Your task to perform on an android device: delete location history Image 0: 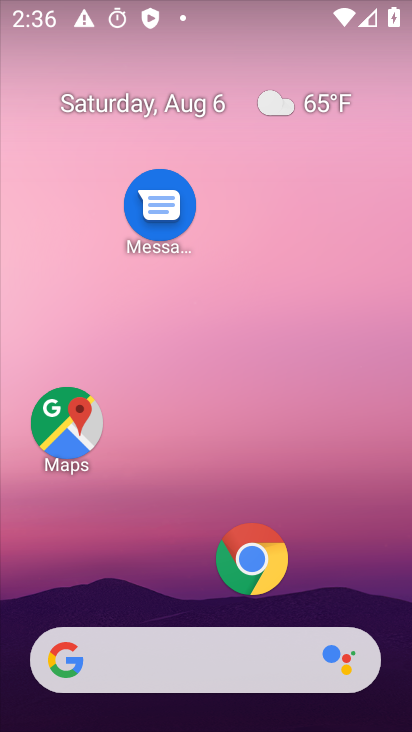
Step 0: drag from (194, 523) to (237, 26)
Your task to perform on an android device: delete location history Image 1: 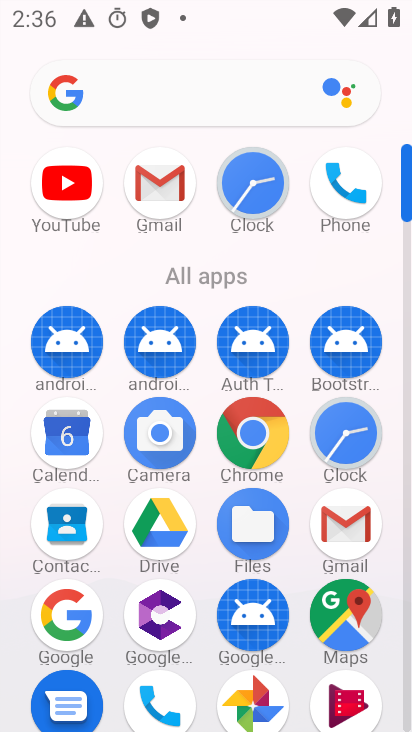
Step 1: drag from (203, 628) to (221, 363)
Your task to perform on an android device: delete location history Image 2: 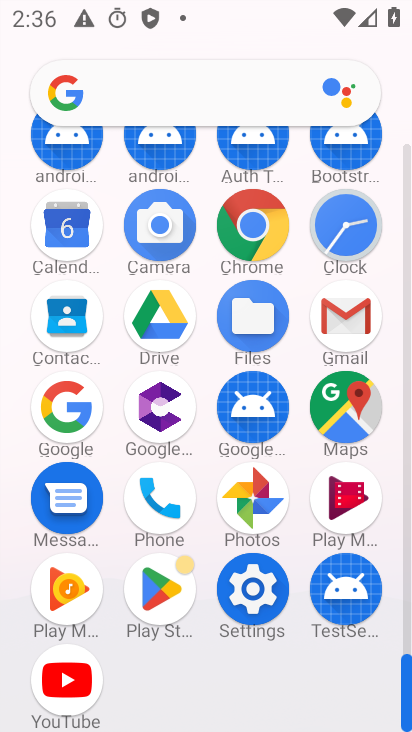
Step 2: click (337, 441)
Your task to perform on an android device: delete location history Image 3: 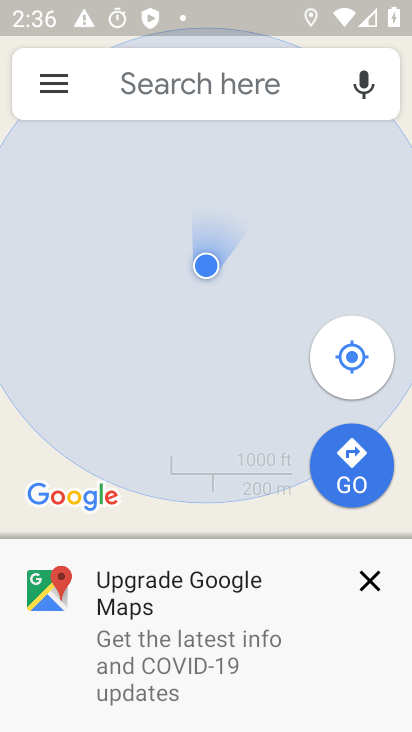
Step 3: click (50, 85)
Your task to perform on an android device: delete location history Image 4: 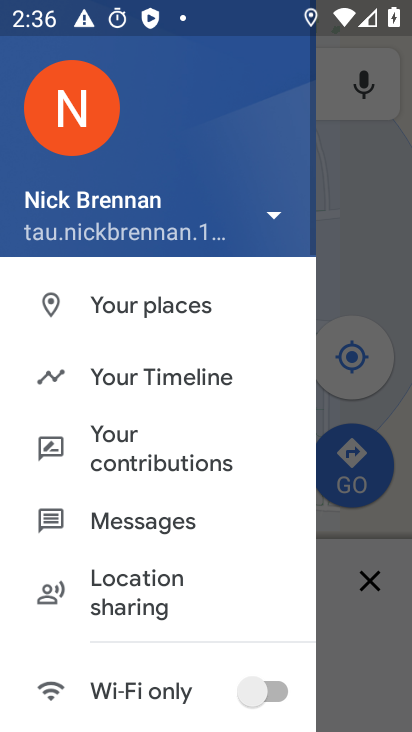
Step 4: click (134, 394)
Your task to perform on an android device: delete location history Image 5: 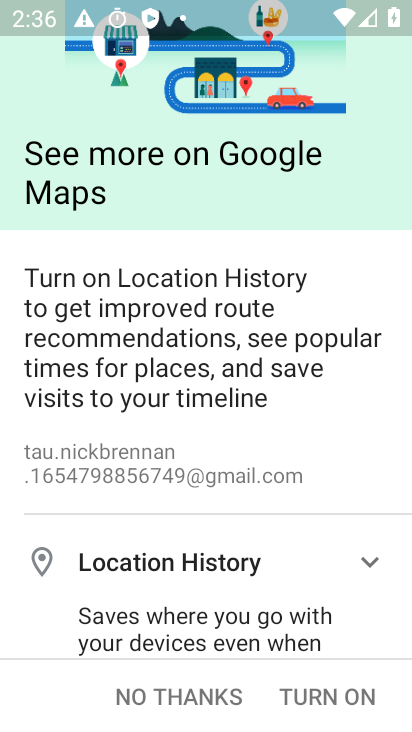
Step 5: click (208, 692)
Your task to perform on an android device: delete location history Image 6: 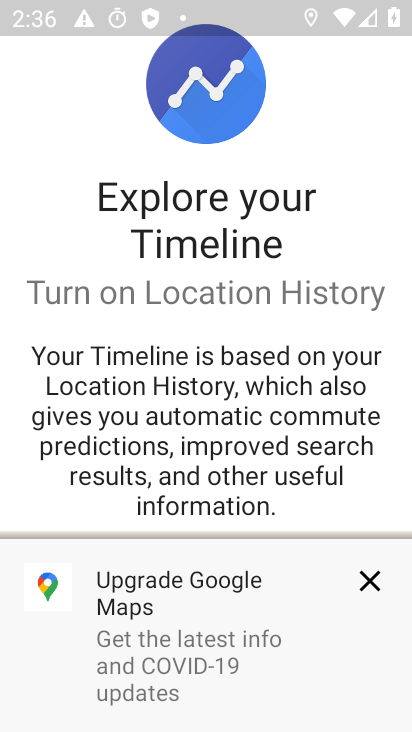
Step 6: click (382, 581)
Your task to perform on an android device: delete location history Image 7: 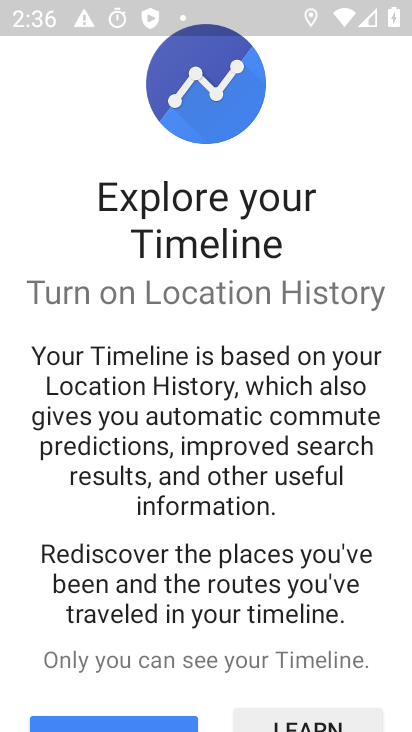
Step 7: drag from (310, 550) to (315, 397)
Your task to perform on an android device: delete location history Image 8: 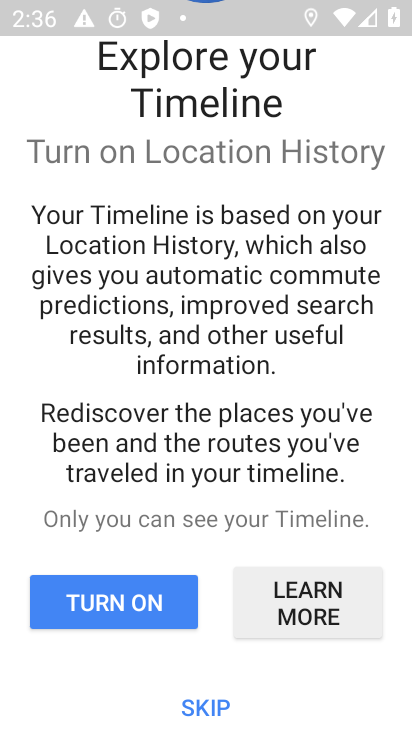
Step 8: click (108, 595)
Your task to perform on an android device: delete location history Image 9: 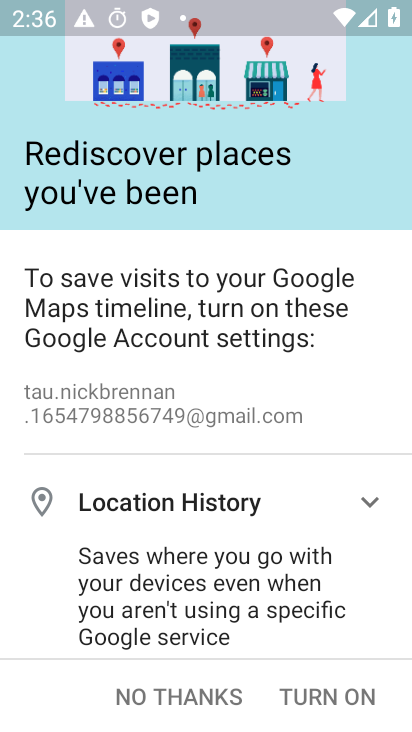
Step 9: click (314, 683)
Your task to perform on an android device: delete location history Image 10: 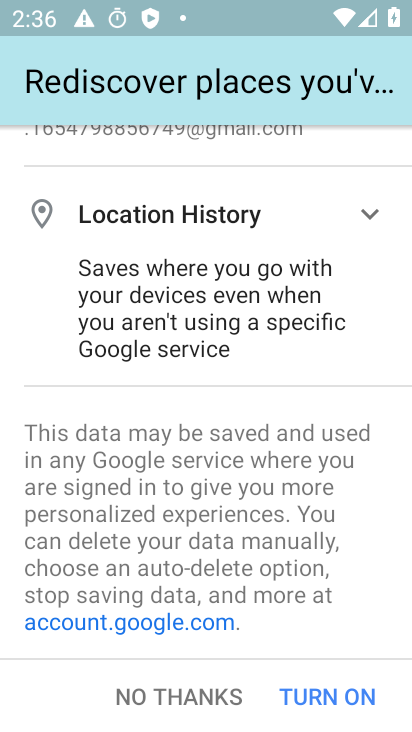
Step 10: click (314, 683)
Your task to perform on an android device: delete location history Image 11: 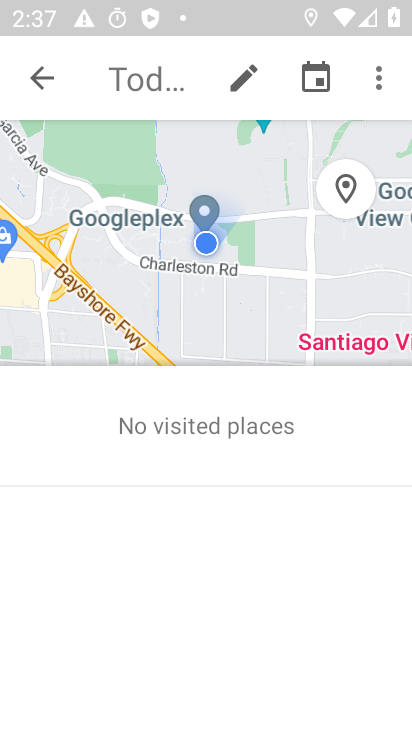
Step 11: click (374, 77)
Your task to perform on an android device: delete location history Image 12: 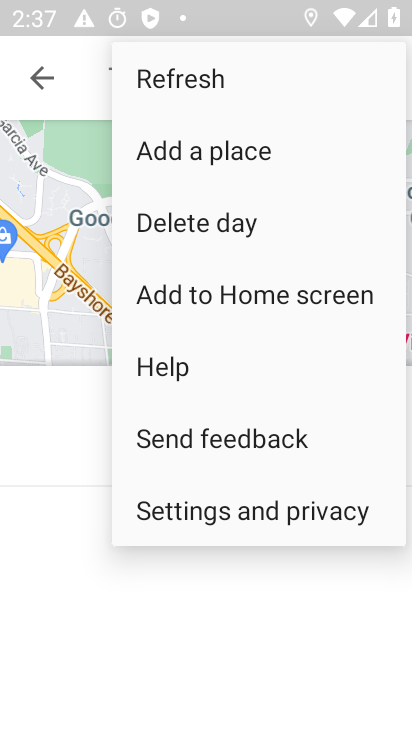
Step 12: click (202, 515)
Your task to perform on an android device: delete location history Image 13: 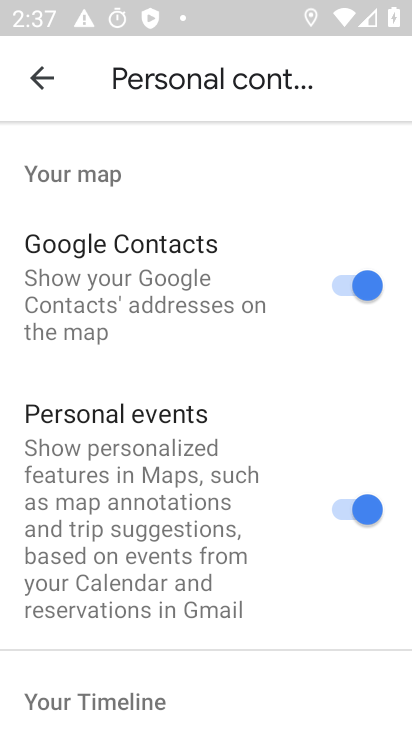
Step 13: drag from (192, 610) to (219, 231)
Your task to perform on an android device: delete location history Image 14: 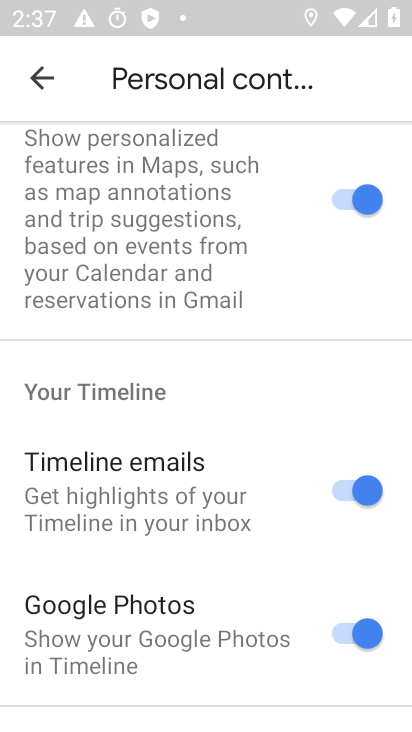
Step 14: drag from (157, 544) to (288, 88)
Your task to perform on an android device: delete location history Image 15: 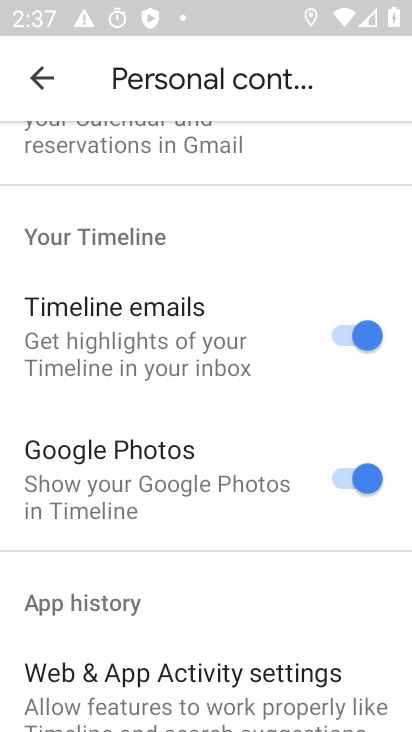
Step 15: drag from (188, 554) to (256, 252)
Your task to perform on an android device: delete location history Image 16: 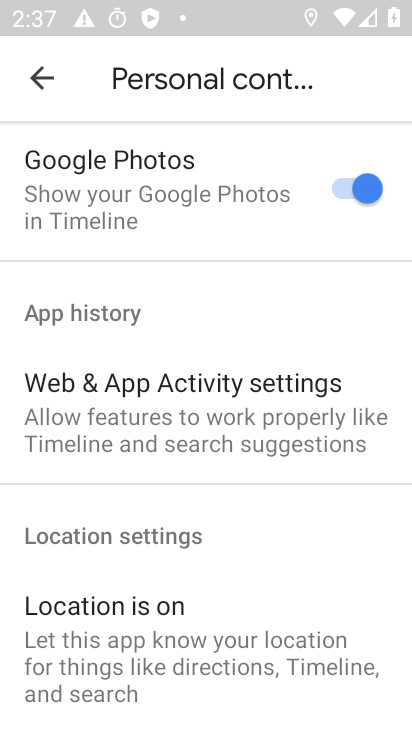
Step 16: drag from (200, 592) to (231, 199)
Your task to perform on an android device: delete location history Image 17: 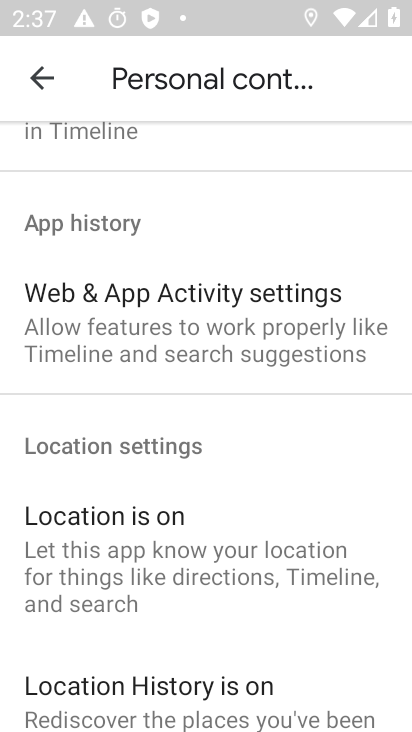
Step 17: drag from (158, 595) to (178, 250)
Your task to perform on an android device: delete location history Image 18: 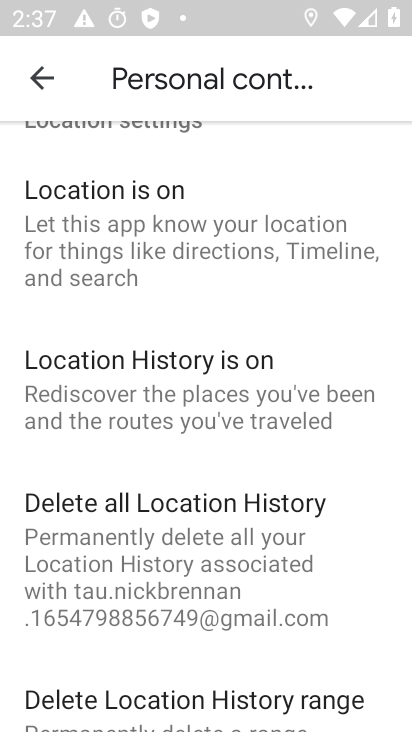
Step 18: click (131, 682)
Your task to perform on an android device: delete location history Image 19: 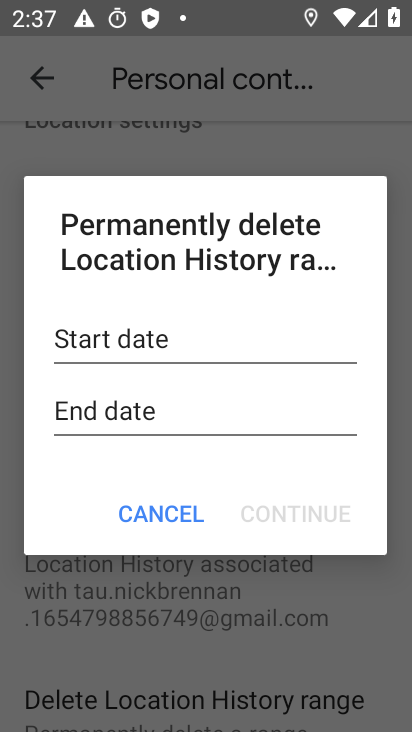
Step 19: click (171, 337)
Your task to perform on an android device: delete location history Image 20: 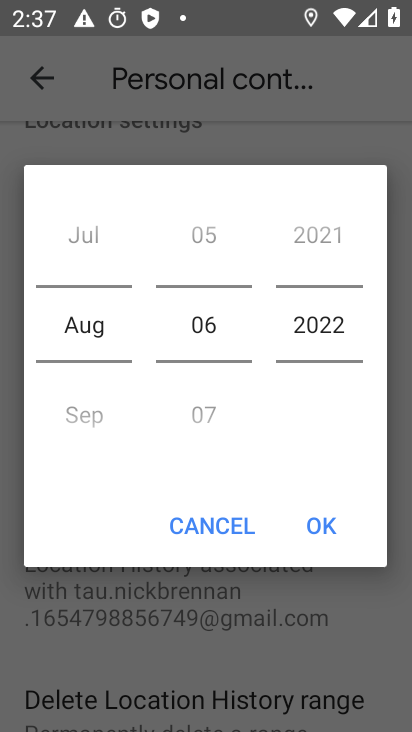
Step 20: click (318, 523)
Your task to perform on an android device: delete location history Image 21: 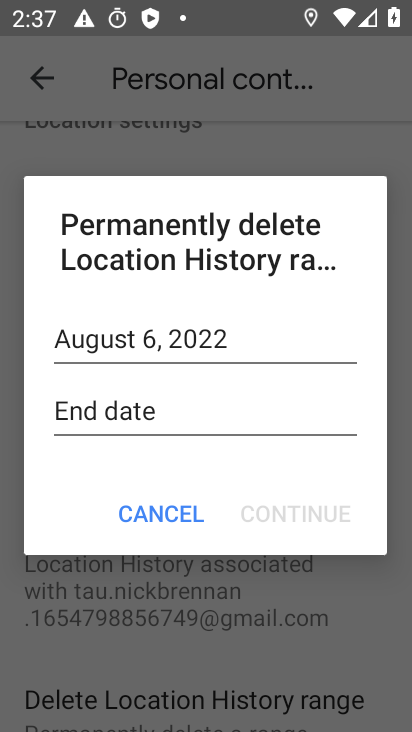
Step 21: click (134, 412)
Your task to perform on an android device: delete location history Image 22: 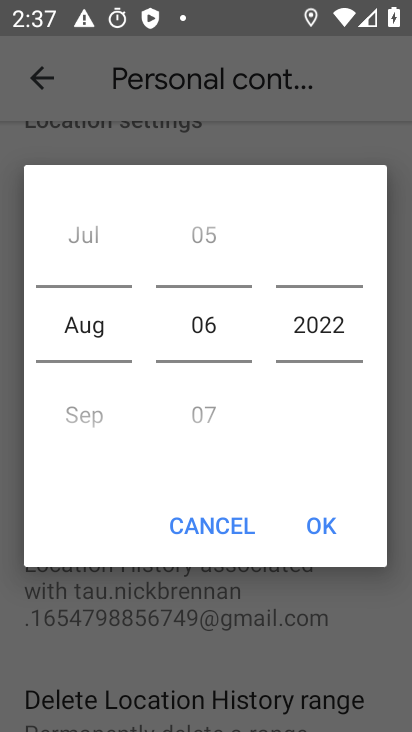
Step 22: click (311, 524)
Your task to perform on an android device: delete location history Image 23: 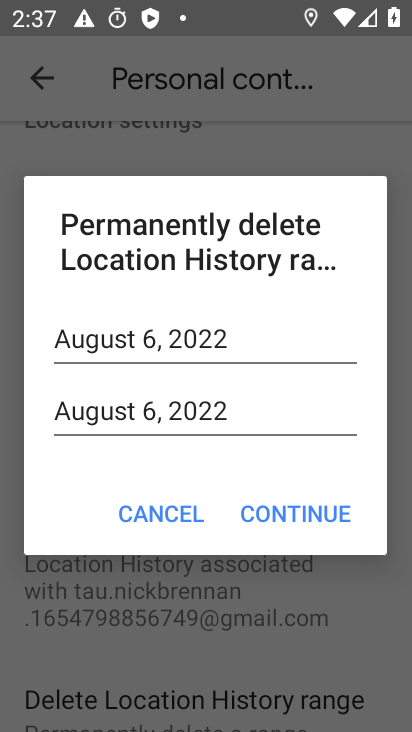
Step 23: click (298, 504)
Your task to perform on an android device: delete location history Image 24: 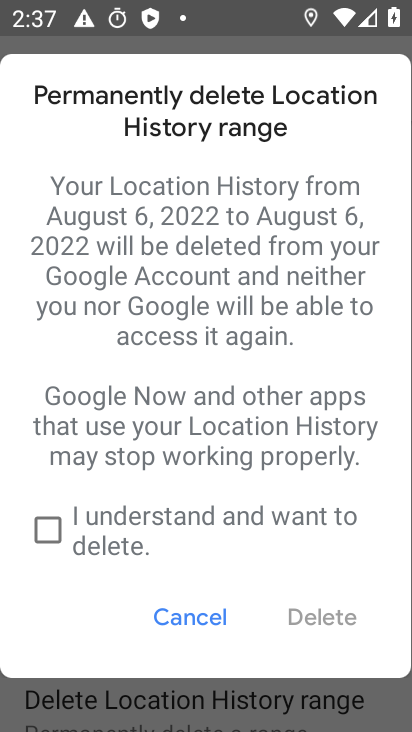
Step 24: click (55, 523)
Your task to perform on an android device: delete location history Image 25: 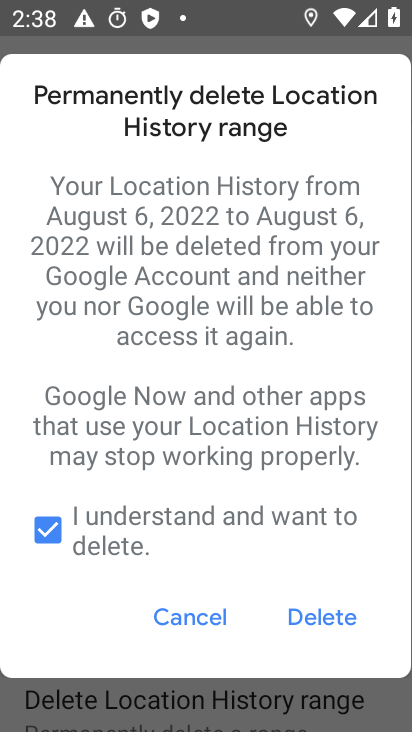
Step 25: click (323, 613)
Your task to perform on an android device: delete location history Image 26: 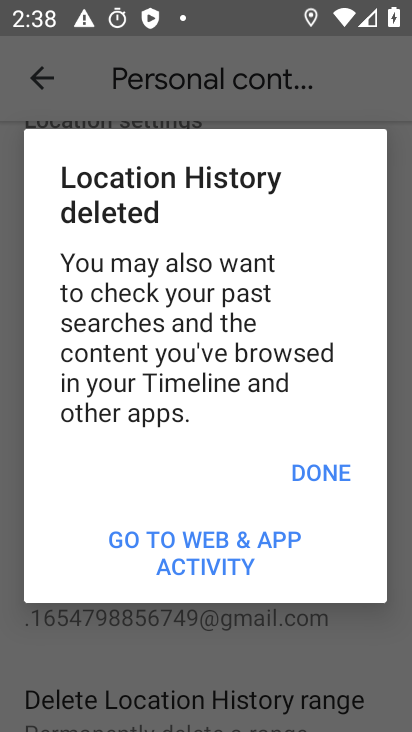
Step 26: click (322, 476)
Your task to perform on an android device: delete location history Image 27: 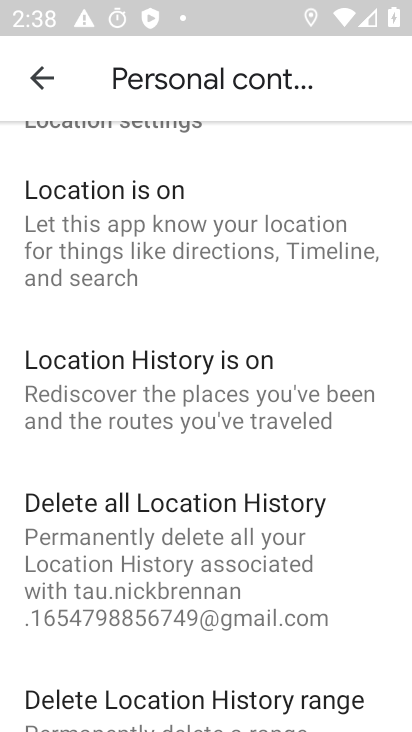
Step 27: task complete